Your task to perform on an android device: turn off improve location accuracy Image 0: 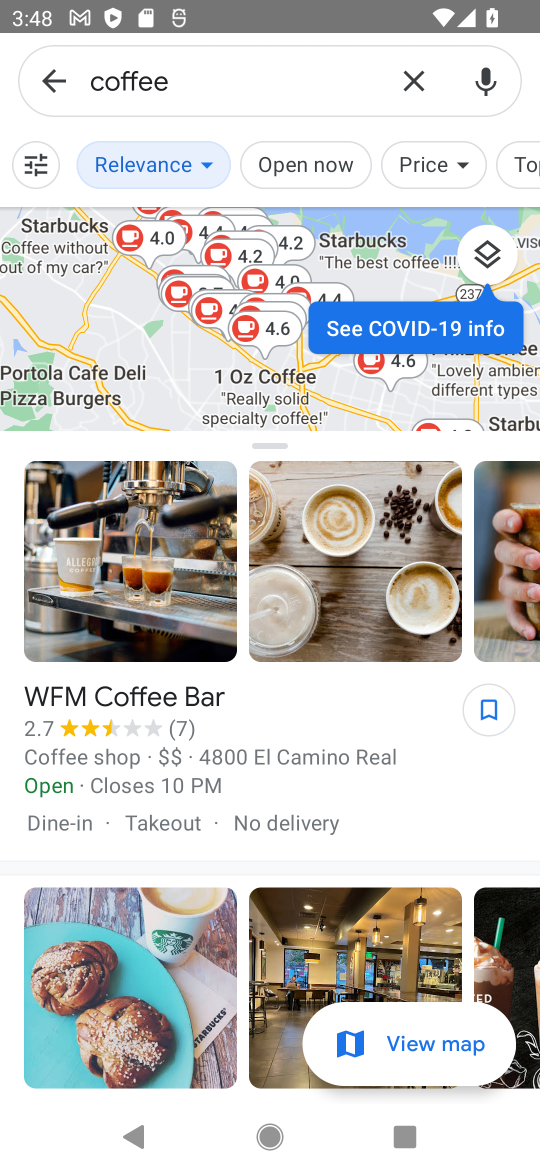
Step 0: press home button
Your task to perform on an android device: turn off improve location accuracy Image 1: 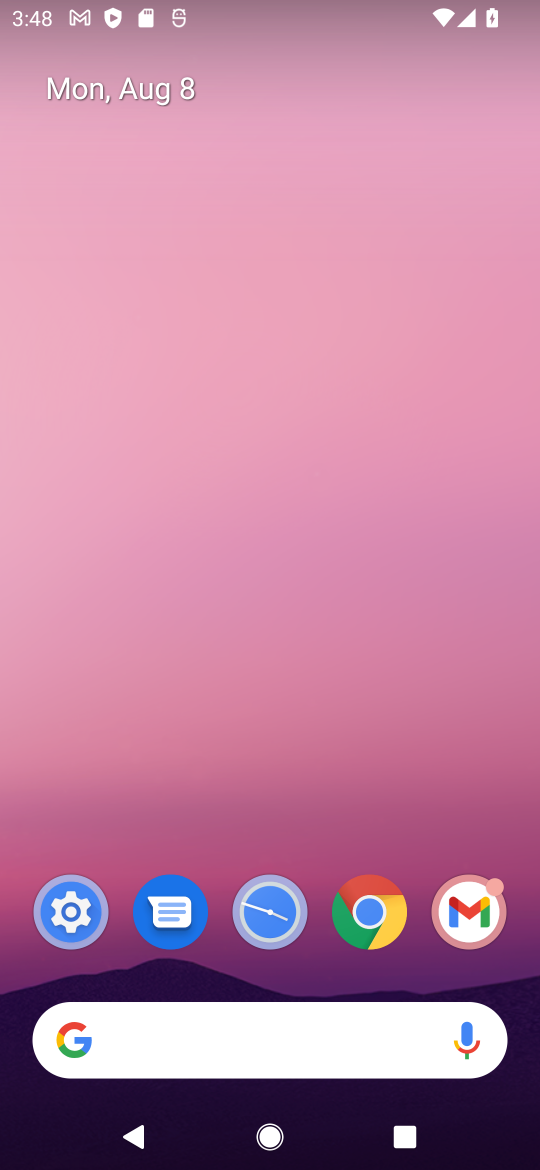
Step 1: drag from (70, 769) to (263, 163)
Your task to perform on an android device: turn off improve location accuracy Image 2: 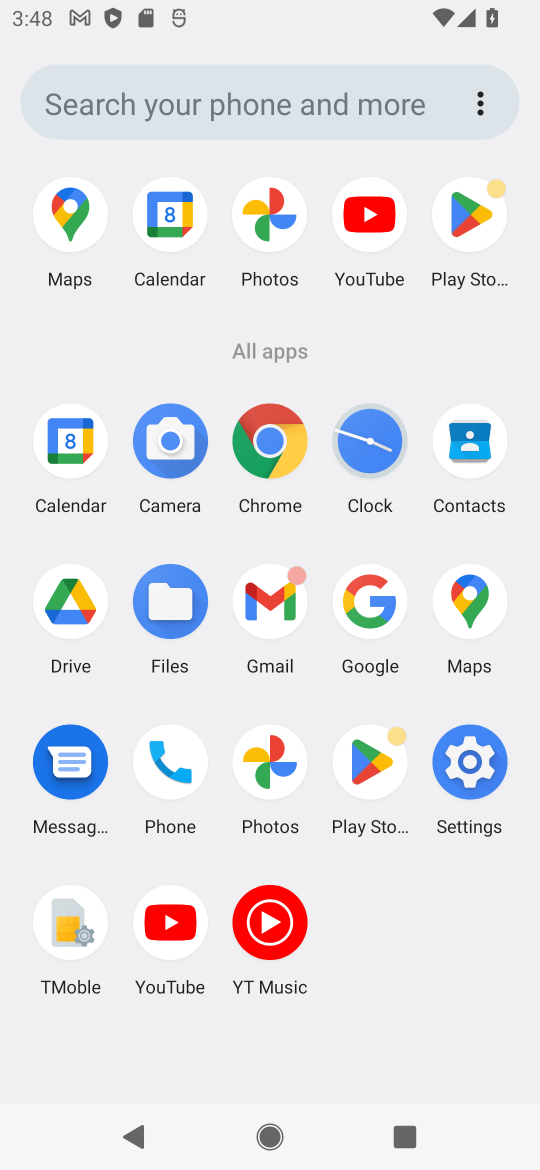
Step 2: click (477, 757)
Your task to perform on an android device: turn off improve location accuracy Image 3: 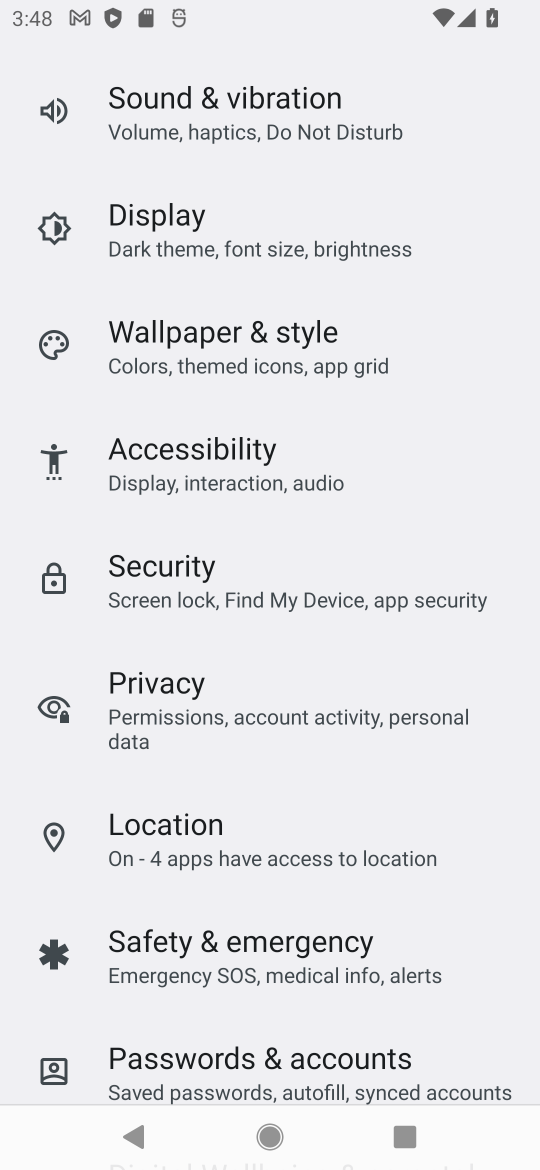
Step 3: click (282, 832)
Your task to perform on an android device: turn off improve location accuracy Image 4: 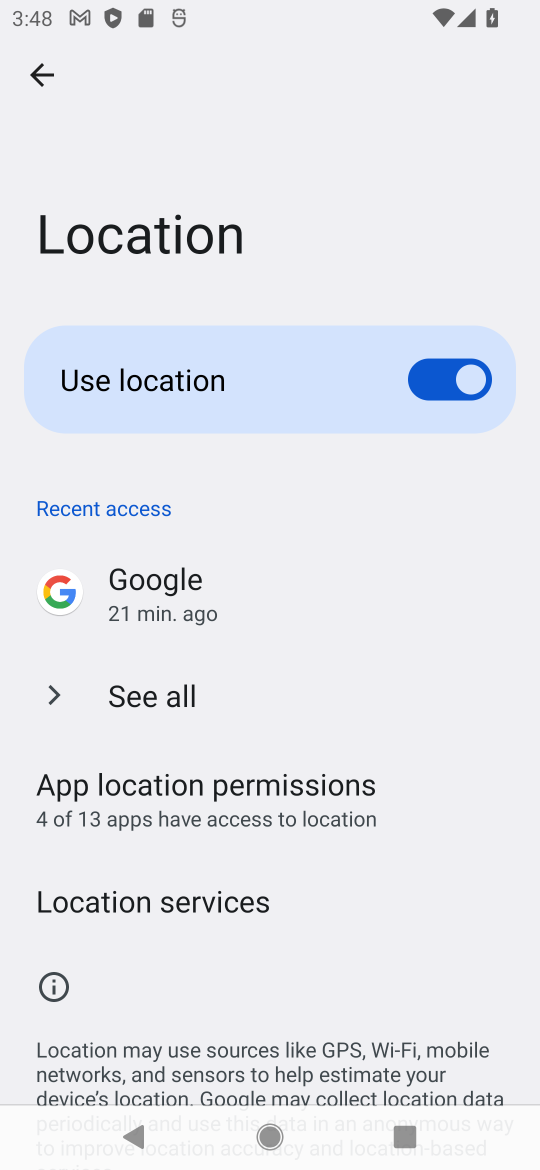
Step 4: drag from (108, 538) to (314, 199)
Your task to perform on an android device: turn off improve location accuracy Image 5: 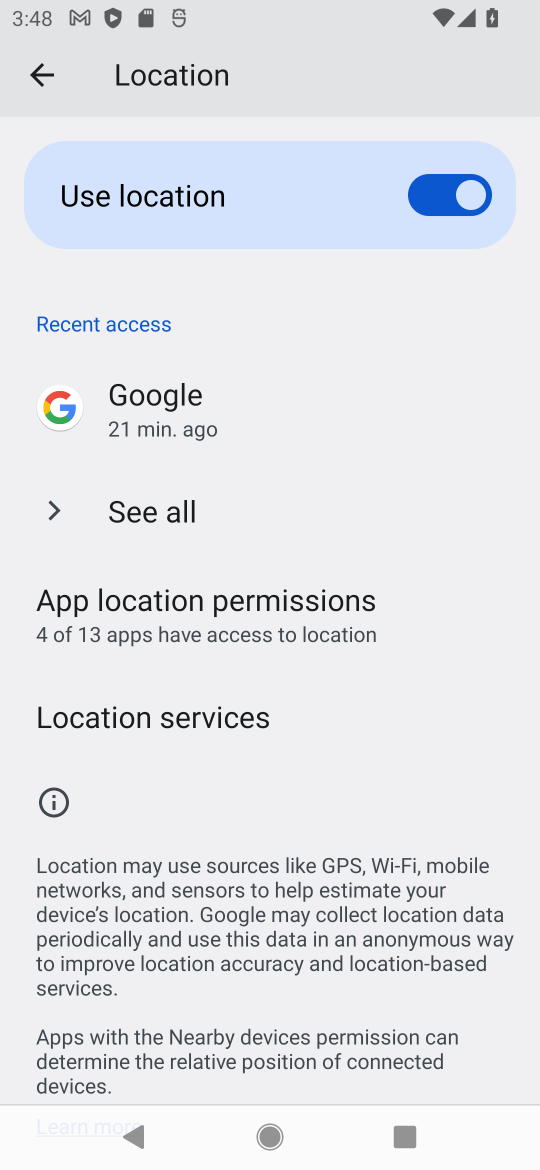
Step 5: drag from (39, 479) to (168, 117)
Your task to perform on an android device: turn off improve location accuracy Image 6: 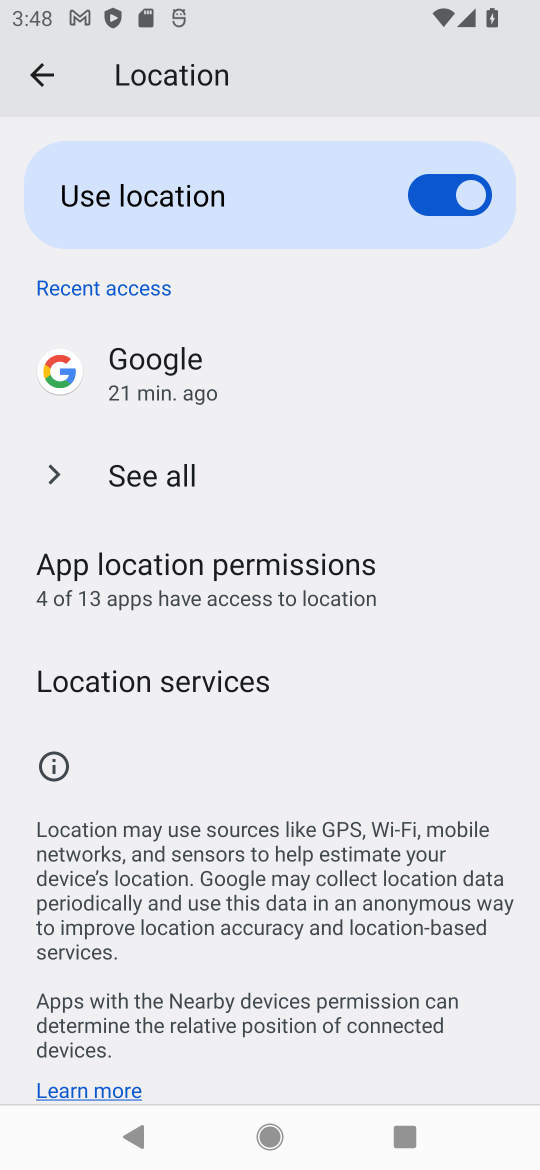
Step 6: drag from (277, 380) to (262, 1036)
Your task to perform on an android device: turn off improve location accuracy Image 7: 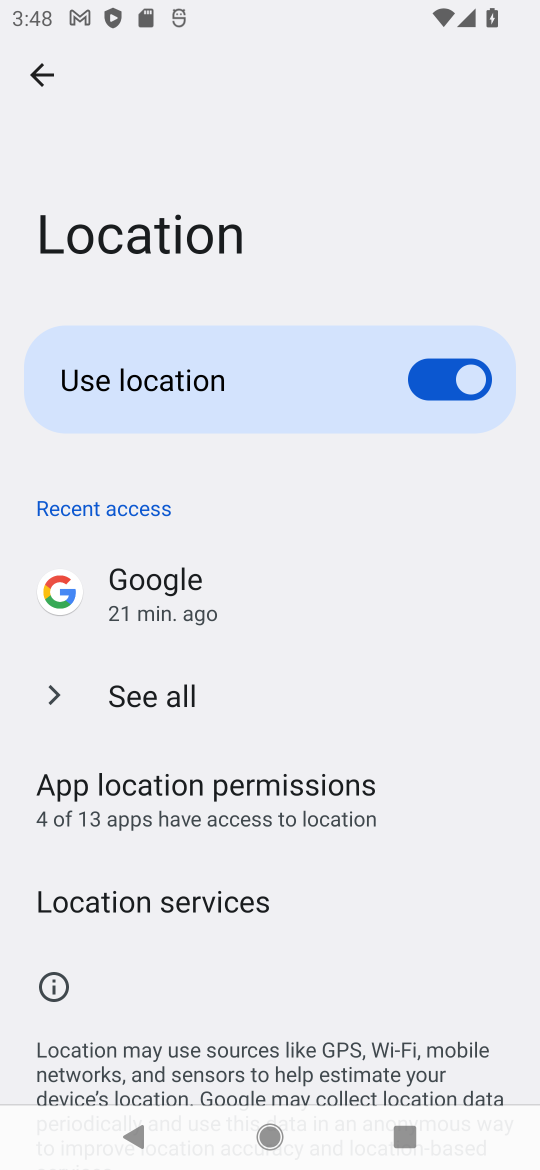
Step 7: click (136, 690)
Your task to perform on an android device: turn off improve location accuracy Image 8: 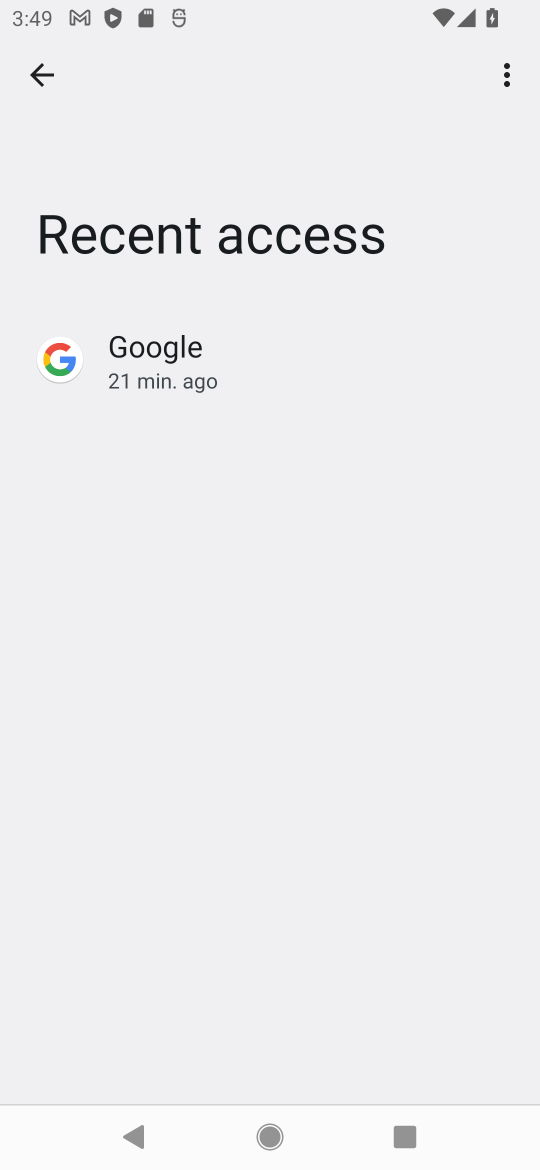
Step 8: click (129, 1135)
Your task to perform on an android device: turn off improve location accuracy Image 9: 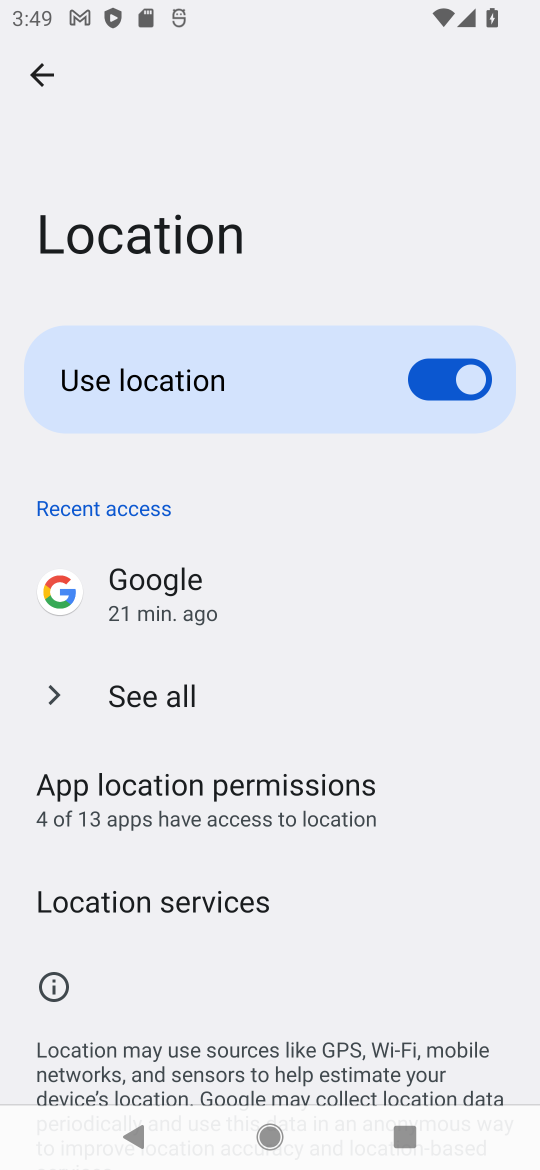
Step 9: click (244, 898)
Your task to perform on an android device: turn off improve location accuracy Image 10: 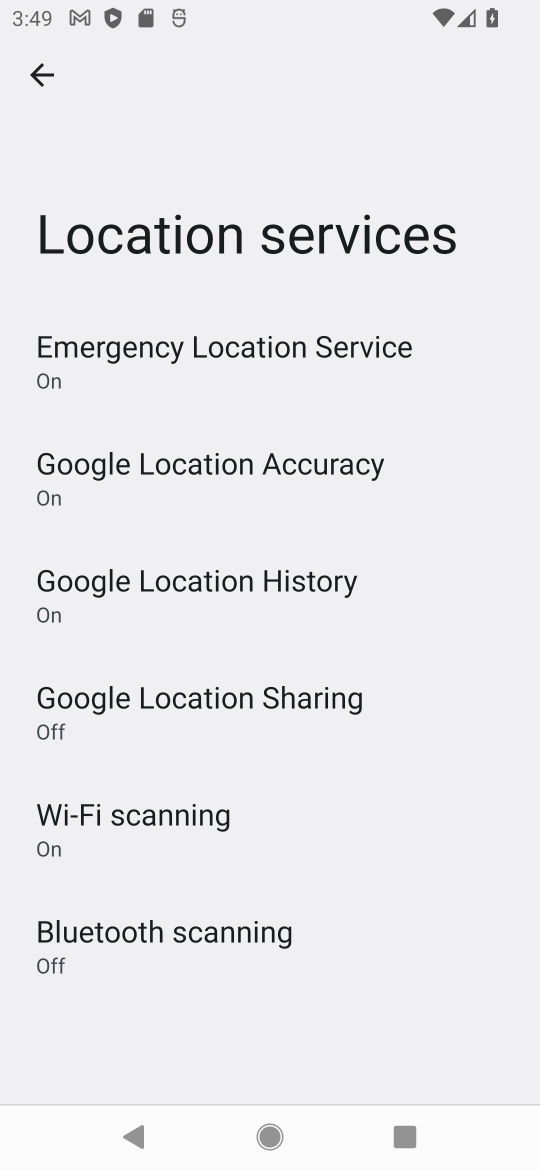
Step 10: click (224, 494)
Your task to perform on an android device: turn off improve location accuracy Image 11: 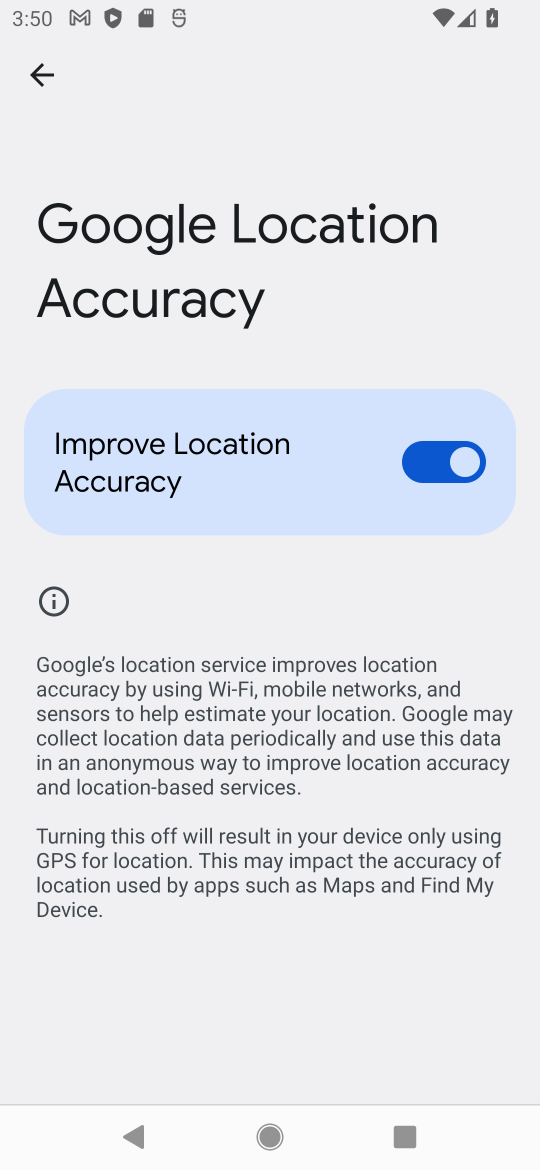
Step 11: click (462, 459)
Your task to perform on an android device: turn off improve location accuracy Image 12: 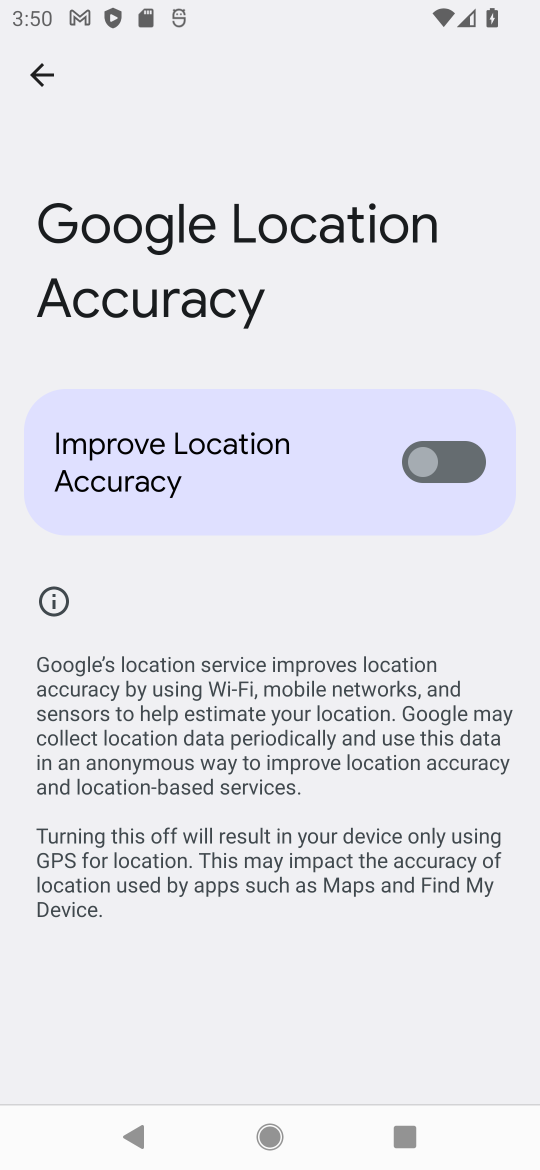
Step 12: task complete